Your task to perform on an android device: delete a single message in the gmail app Image 0: 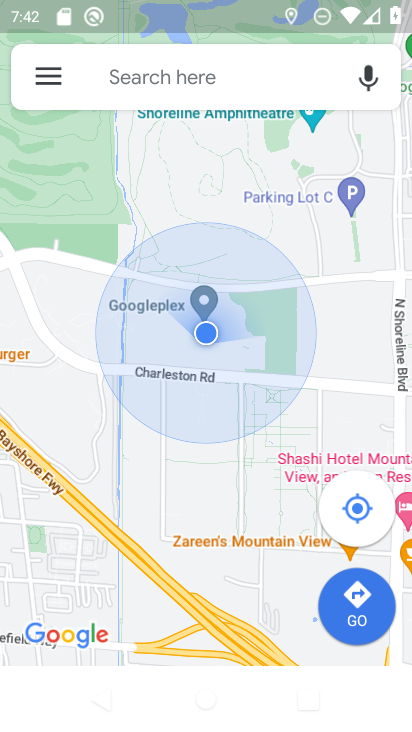
Step 0: press home button
Your task to perform on an android device: delete a single message in the gmail app Image 1: 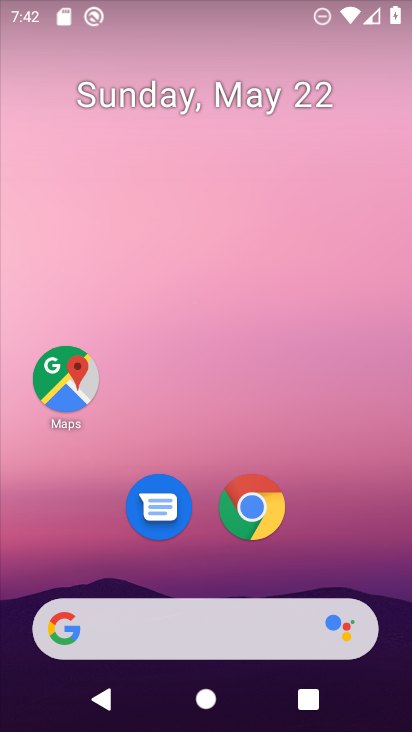
Step 1: drag from (149, 704) to (232, 70)
Your task to perform on an android device: delete a single message in the gmail app Image 2: 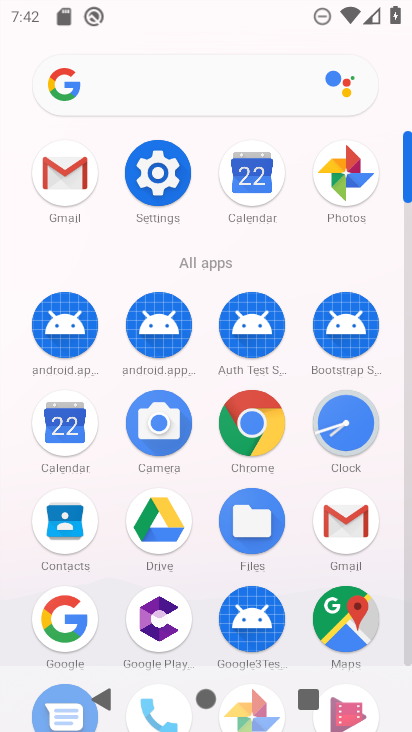
Step 2: click (67, 166)
Your task to perform on an android device: delete a single message in the gmail app Image 3: 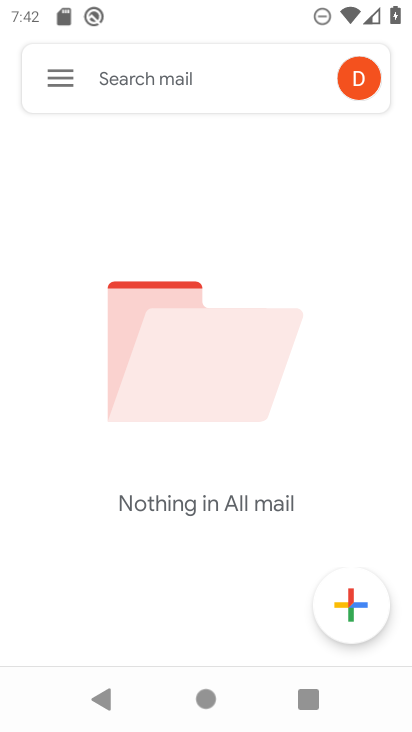
Step 3: task complete